Your task to perform on an android device: Go to Wikipedia Image 0: 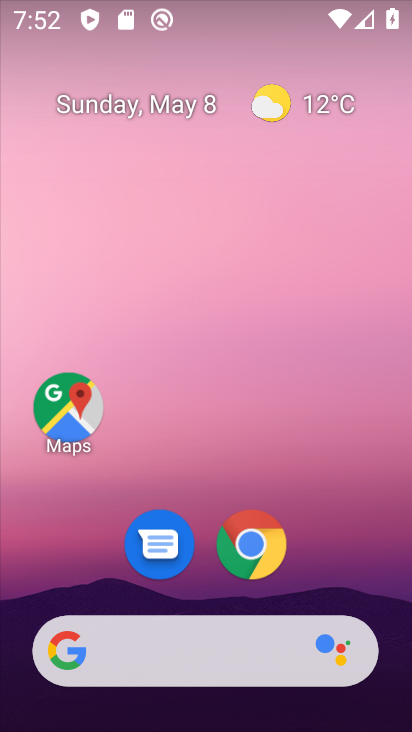
Step 0: click (259, 544)
Your task to perform on an android device: Go to Wikipedia Image 1: 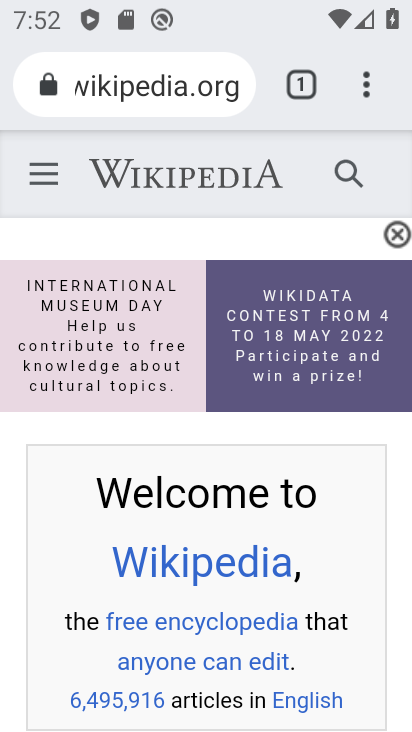
Step 1: task complete